Your task to perform on an android device: star an email in the gmail app Image 0: 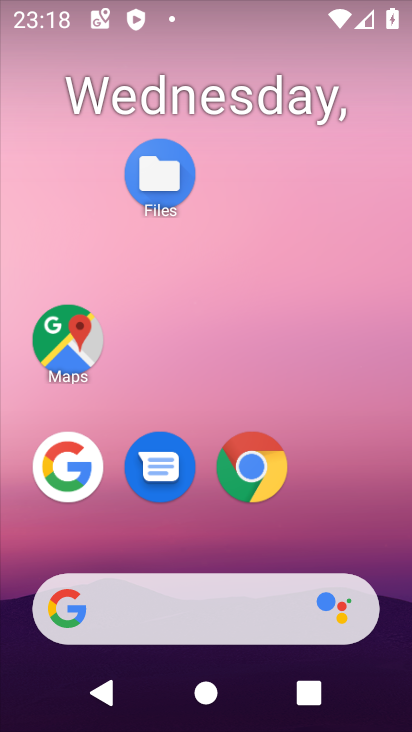
Step 0: drag from (192, 554) to (176, 18)
Your task to perform on an android device: star an email in the gmail app Image 1: 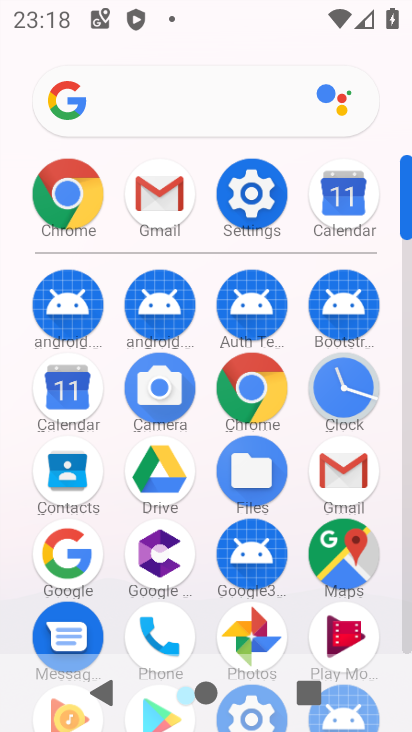
Step 1: click (332, 472)
Your task to perform on an android device: star an email in the gmail app Image 2: 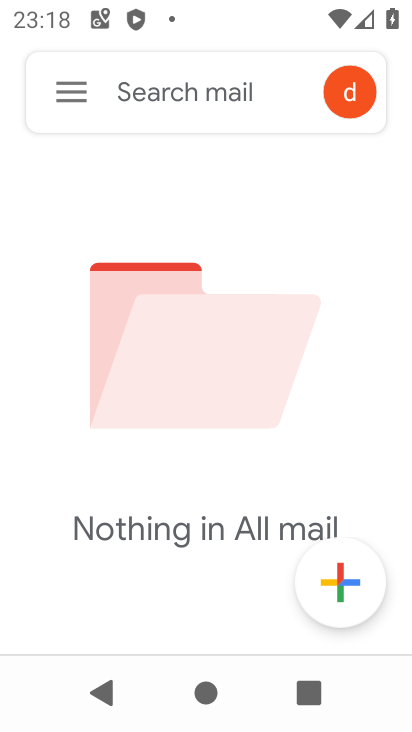
Step 2: click (58, 96)
Your task to perform on an android device: star an email in the gmail app Image 3: 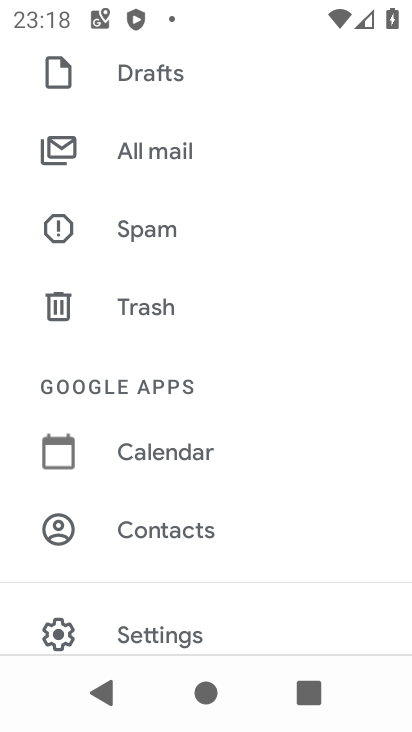
Step 3: drag from (142, 164) to (115, 479)
Your task to perform on an android device: star an email in the gmail app Image 4: 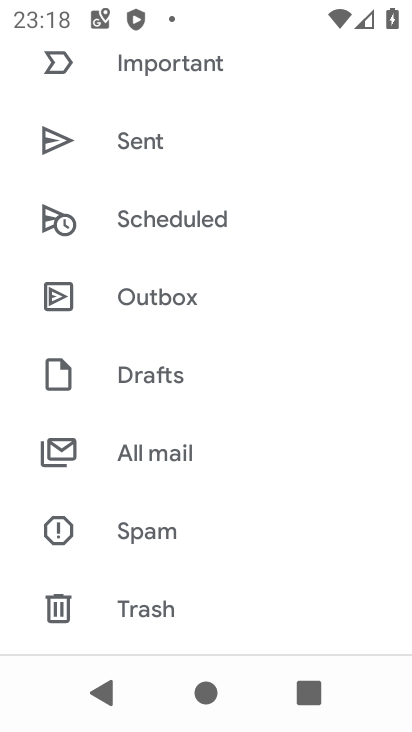
Step 4: drag from (103, 65) to (114, 295)
Your task to perform on an android device: star an email in the gmail app Image 5: 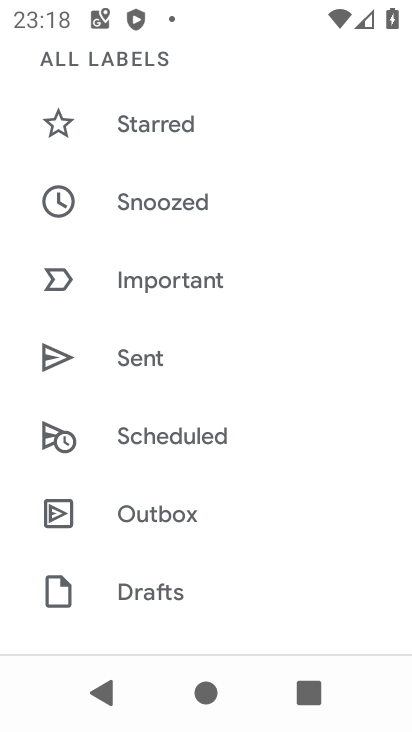
Step 5: click (165, 113)
Your task to perform on an android device: star an email in the gmail app Image 6: 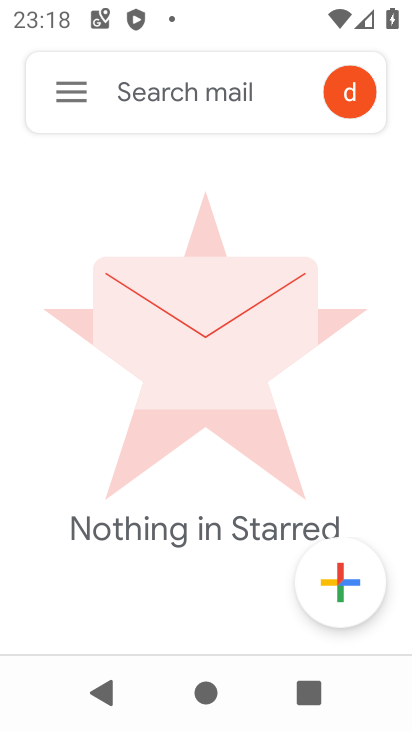
Step 6: task complete